Your task to perform on an android device: Open battery settings Image 0: 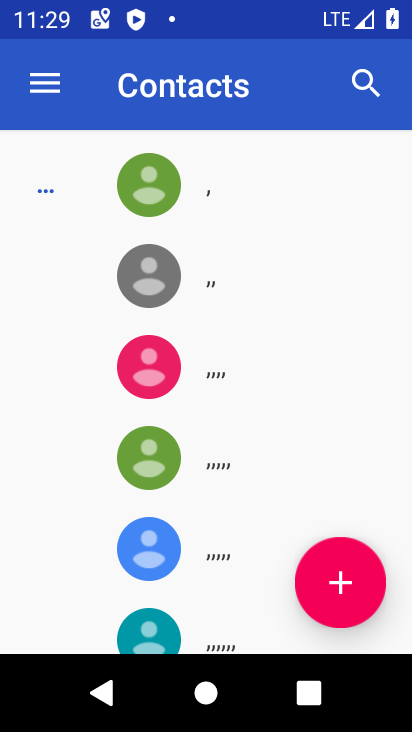
Step 0: press back button
Your task to perform on an android device: Open battery settings Image 1: 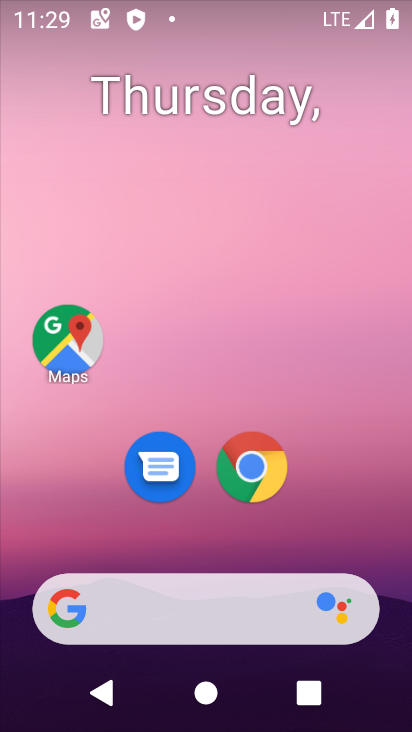
Step 1: drag from (176, 566) to (278, 61)
Your task to perform on an android device: Open battery settings Image 2: 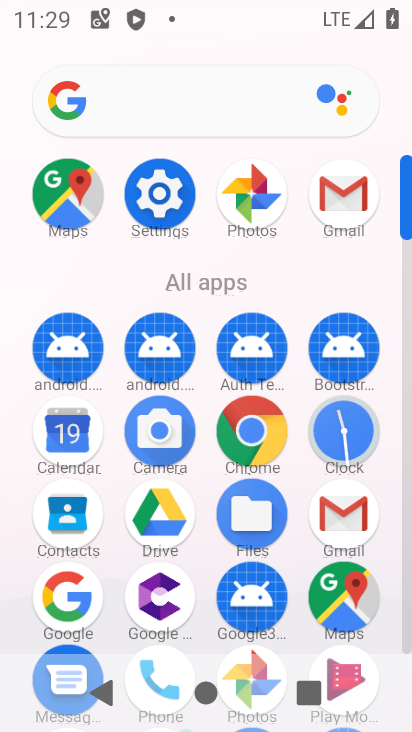
Step 2: click (168, 199)
Your task to perform on an android device: Open battery settings Image 3: 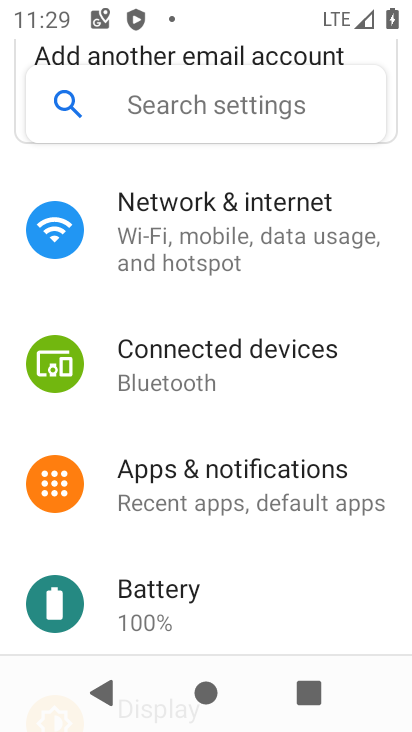
Step 3: click (168, 600)
Your task to perform on an android device: Open battery settings Image 4: 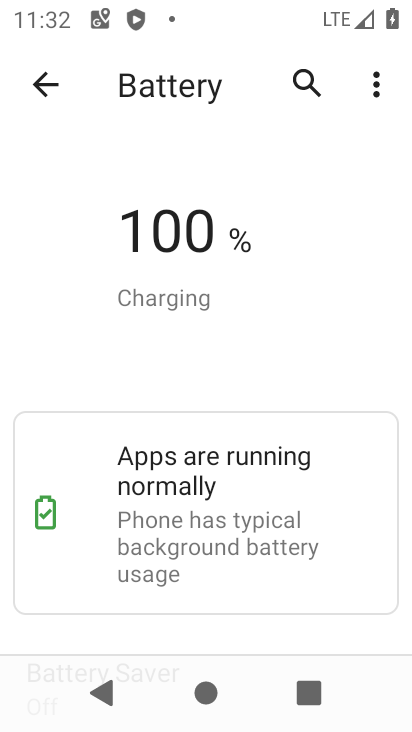
Step 4: task complete